Your task to perform on an android device: turn notification dots on Image 0: 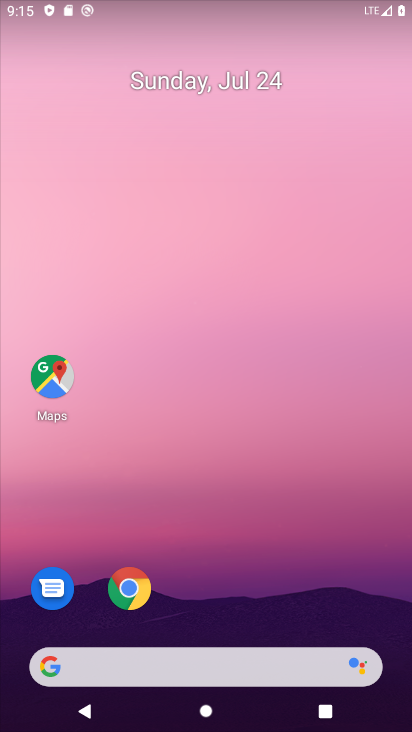
Step 0: drag from (300, 385) to (300, 183)
Your task to perform on an android device: turn notification dots on Image 1: 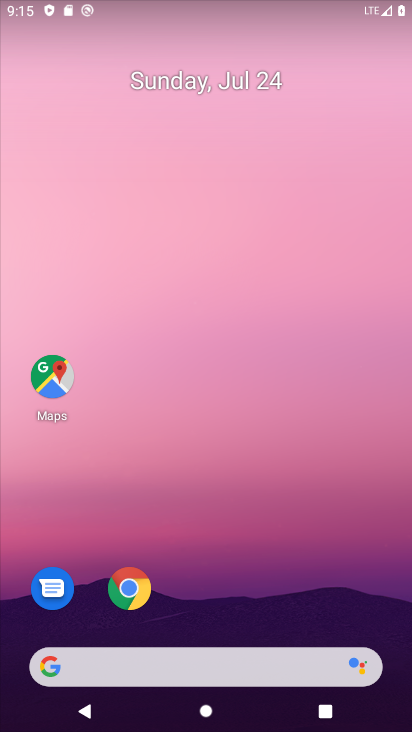
Step 1: drag from (272, 709) to (285, 128)
Your task to perform on an android device: turn notification dots on Image 2: 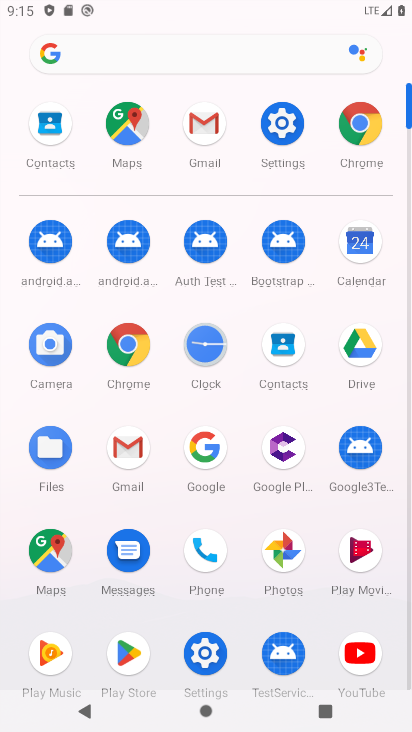
Step 2: click (274, 112)
Your task to perform on an android device: turn notification dots on Image 3: 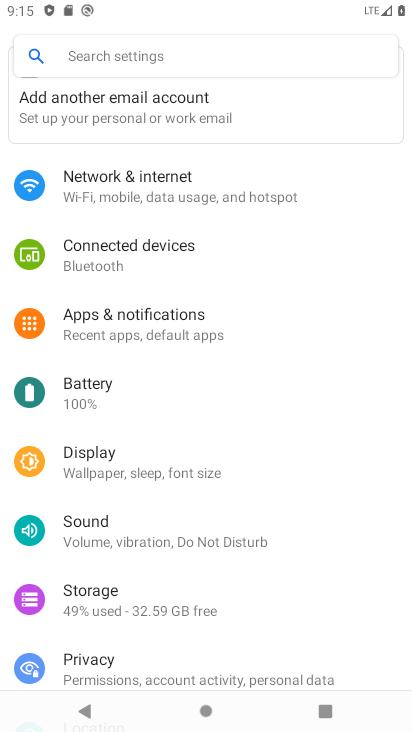
Step 3: click (252, 324)
Your task to perform on an android device: turn notification dots on Image 4: 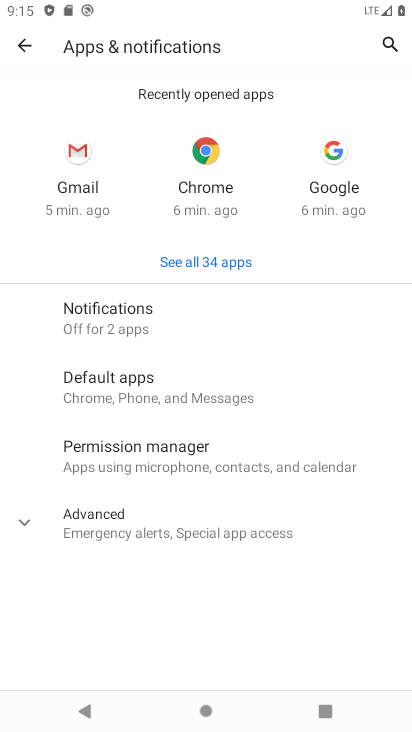
Step 4: click (203, 319)
Your task to perform on an android device: turn notification dots on Image 5: 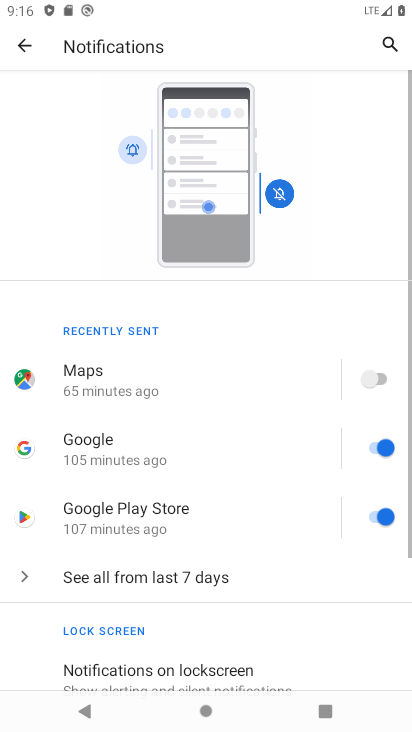
Step 5: drag from (269, 597) to (295, 36)
Your task to perform on an android device: turn notification dots on Image 6: 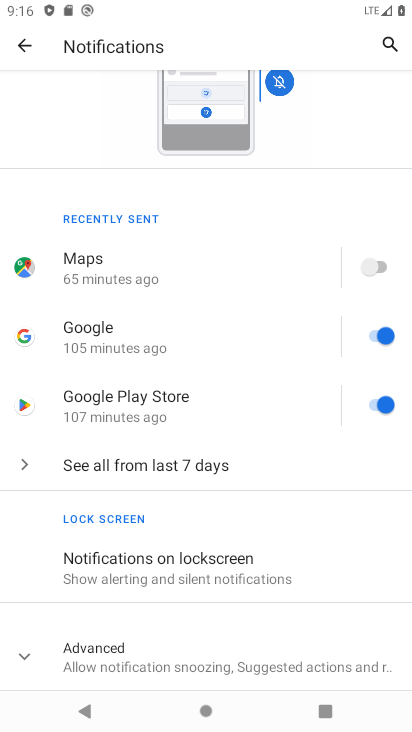
Step 6: drag from (243, 358) to (282, 128)
Your task to perform on an android device: turn notification dots on Image 7: 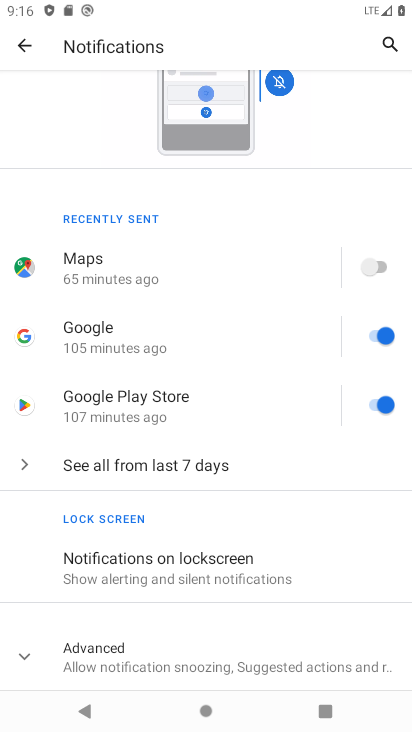
Step 7: click (233, 670)
Your task to perform on an android device: turn notification dots on Image 8: 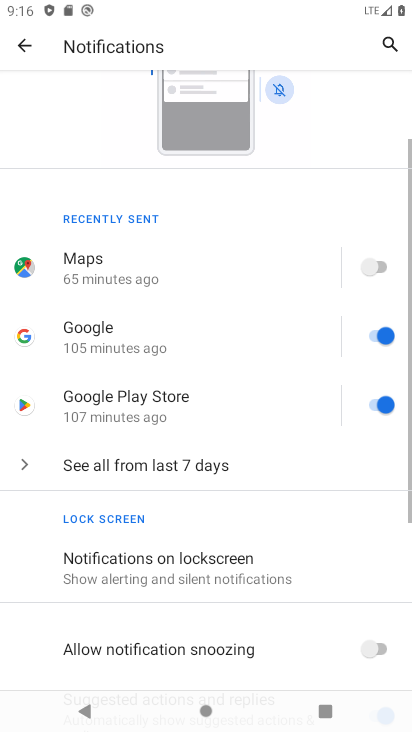
Step 8: drag from (284, 631) to (313, 82)
Your task to perform on an android device: turn notification dots on Image 9: 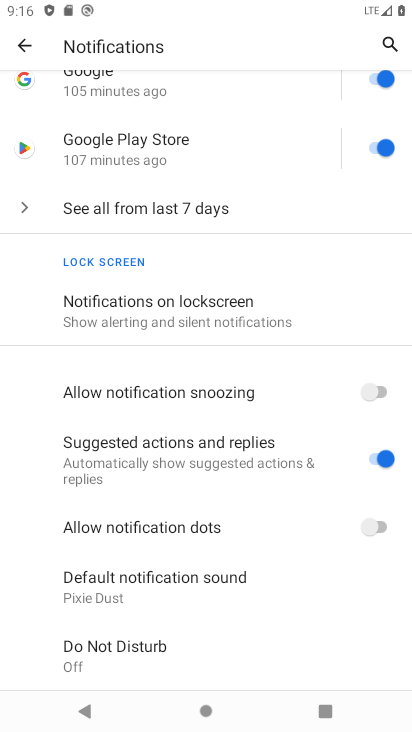
Step 9: click (373, 529)
Your task to perform on an android device: turn notification dots on Image 10: 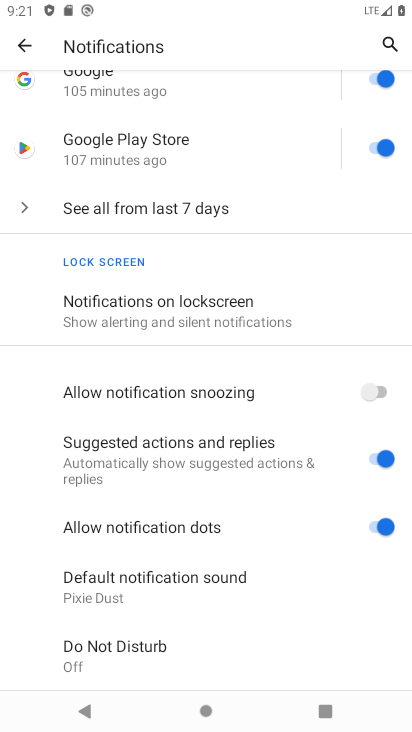
Step 10: task complete